Your task to perform on an android device: Set the phone to "Do not disturb". Image 0: 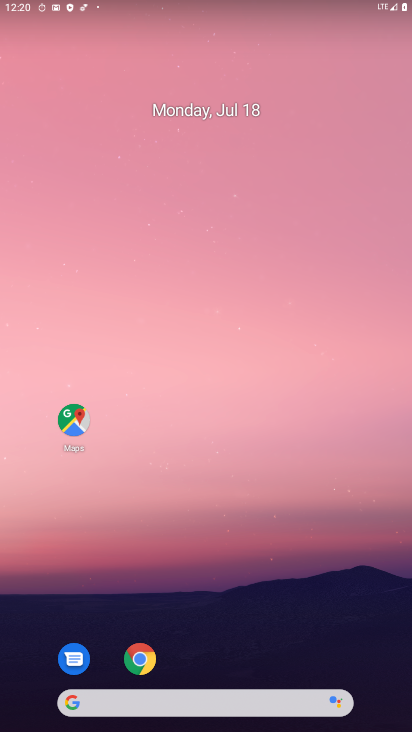
Step 0: drag from (214, 666) to (226, 143)
Your task to perform on an android device: Set the phone to "Do not disturb". Image 1: 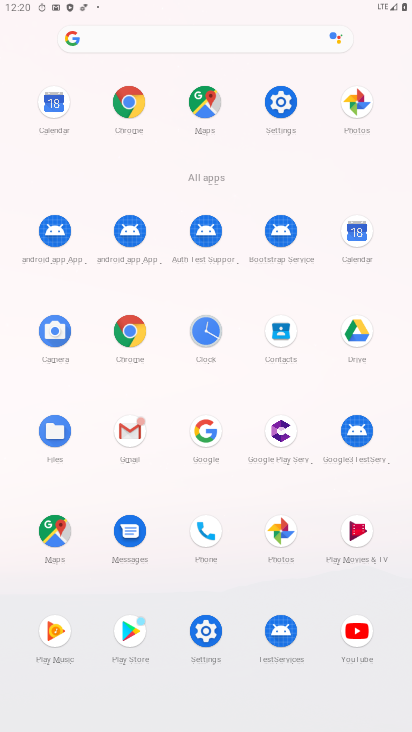
Step 1: click (193, 635)
Your task to perform on an android device: Set the phone to "Do not disturb". Image 2: 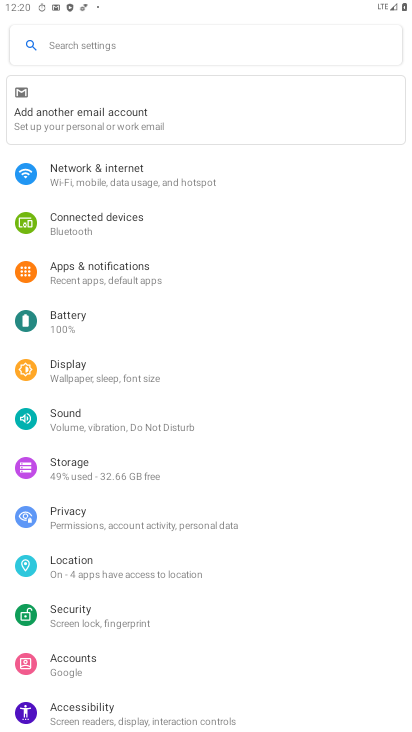
Step 2: click (100, 429)
Your task to perform on an android device: Set the phone to "Do not disturb". Image 3: 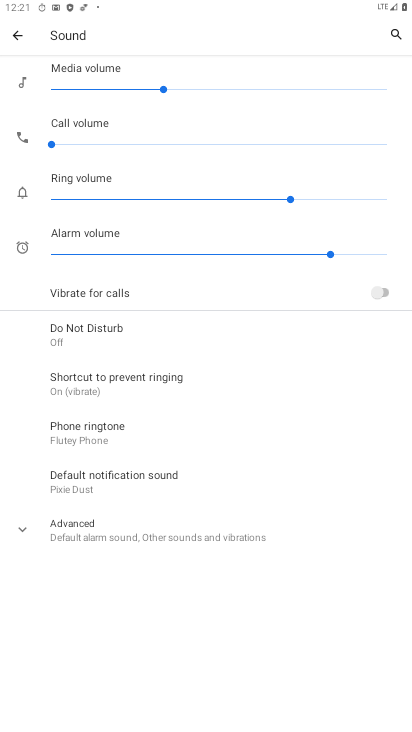
Step 3: click (113, 339)
Your task to perform on an android device: Set the phone to "Do not disturb". Image 4: 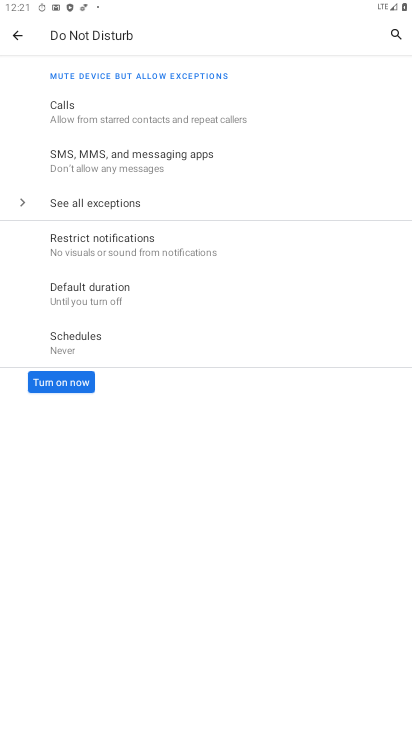
Step 4: click (78, 392)
Your task to perform on an android device: Set the phone to "Do not disturb". Image 5: 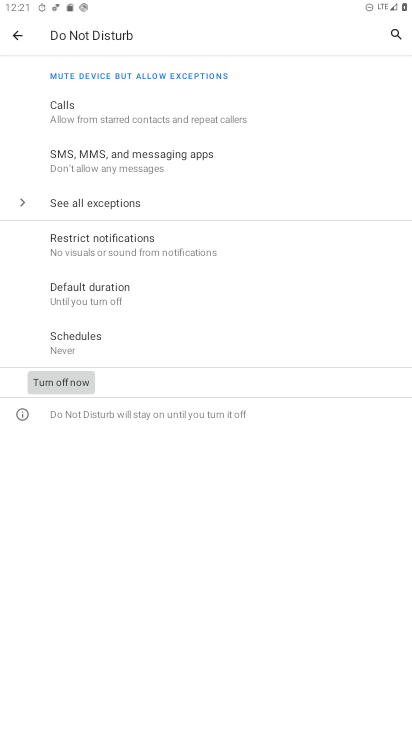
Step 5: task complete